Your task to perform on an android device: Open calendar and show me the first week of next month Image 0: 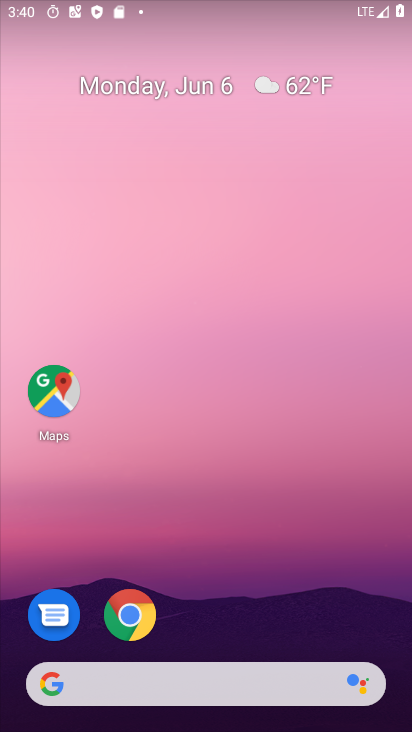
Step 0: drag from (191, 678) to (297, 3)
Your task to perform on an android device: Open calendar and show me the first week of next month Image 1: 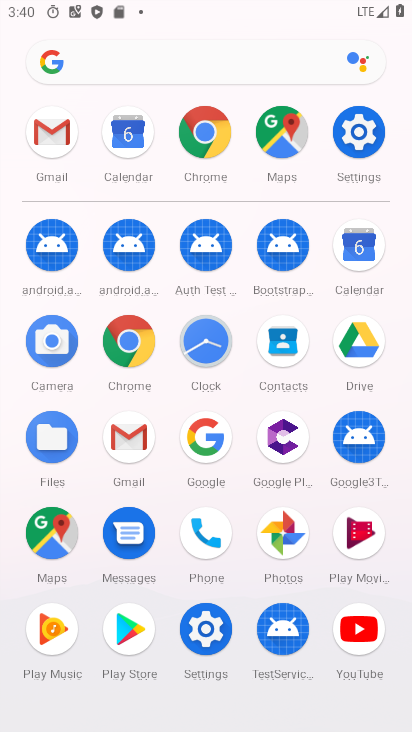
Step 1: click (357, 256)
Your task to perform on an android device: Open calendar and show me the first week of next month Image 2: 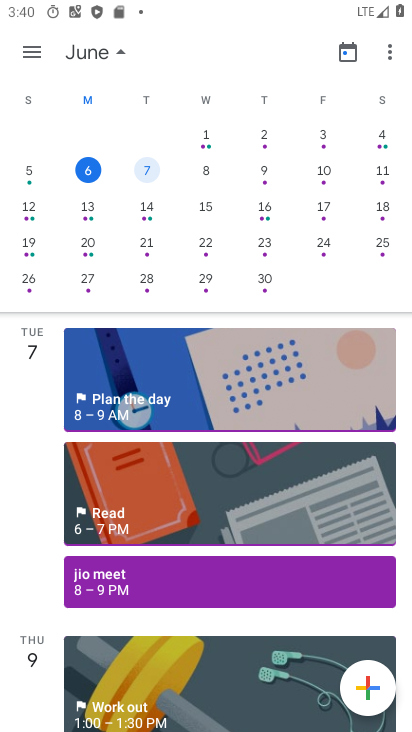
Step 2: drag from (364, 222) to (0, 234)
Your task to perform on an android device: Open calendar and show me the first week of next month Image 3: 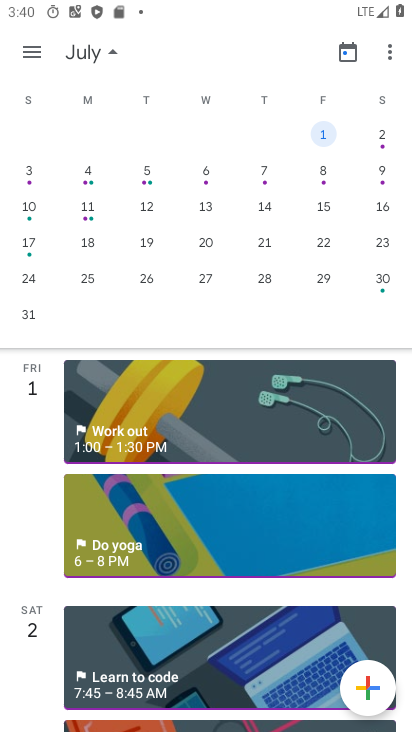
Step 3: click (201, 171)
Your task to perform on an android device: Open calendar and show me the first week of next month Image 4: 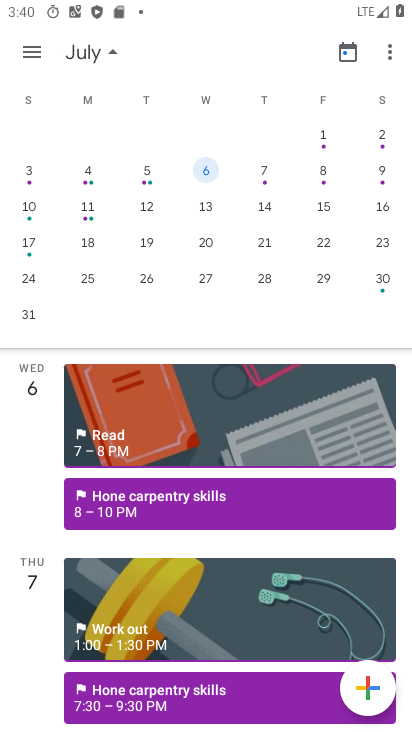
Step 4: click (41, 53)
Your task to perform on an android device: Open calendar and show me the first week of next month Image 5: 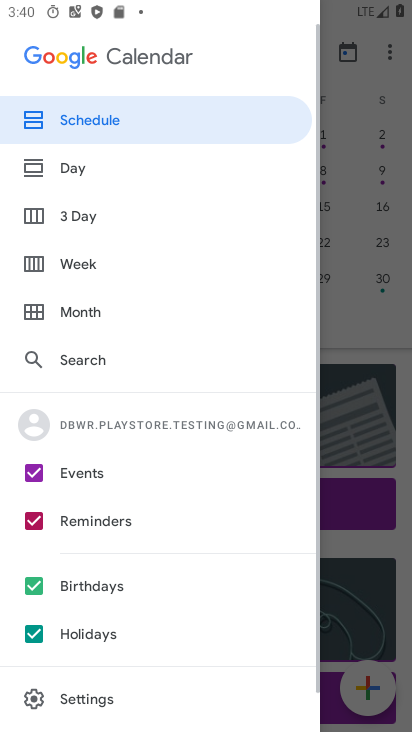
Step 5: click (92, 260)
Your task to perform on an android device: Open calendar and show me the first week of next month Image 6: 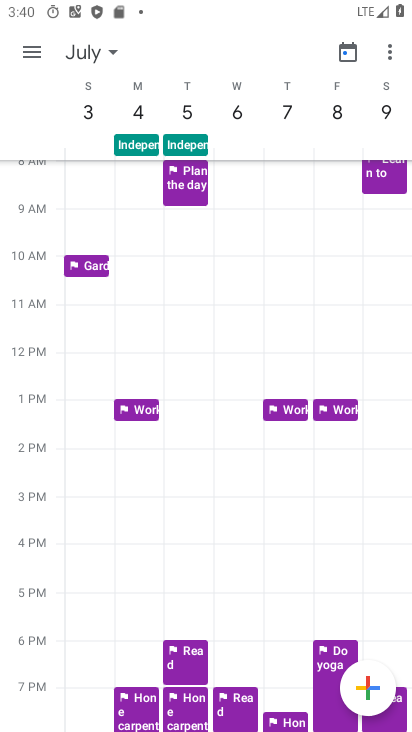
Step 6: task complete